Your task to perform on an android device: turn off location Image 0: 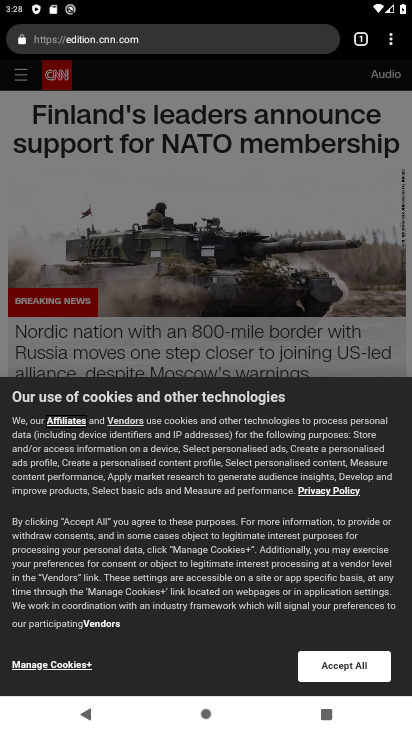
Step 0: click (399, 35)
Your task to perform on an android device: turn off location Image 1: 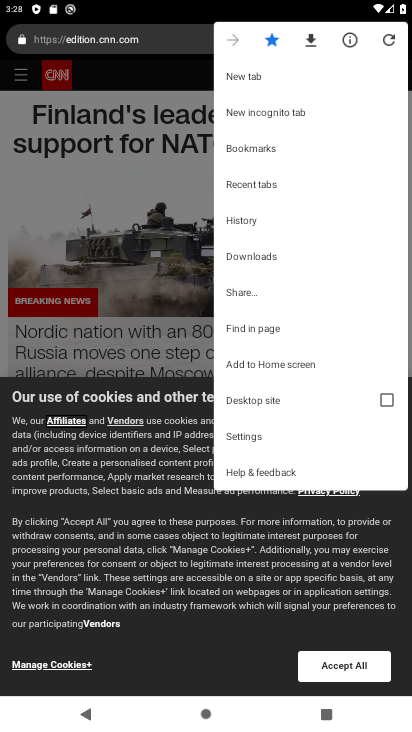
Step 1: click (284, 432)
Your task to perform on an android device: turn off location Image 2: 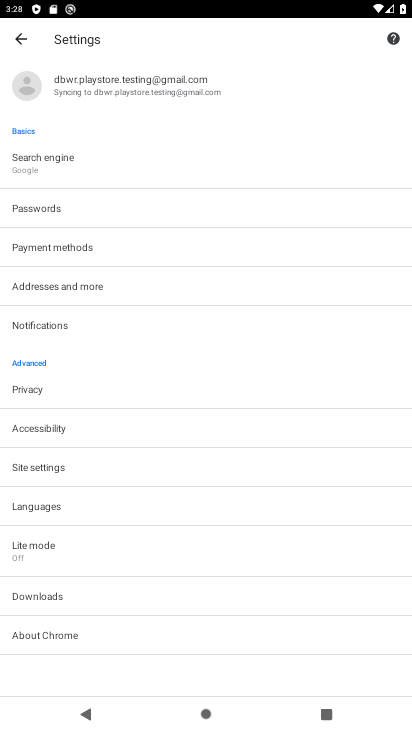
Step 2: press home button
Your task to perform on an android device: turn off location Image 3: 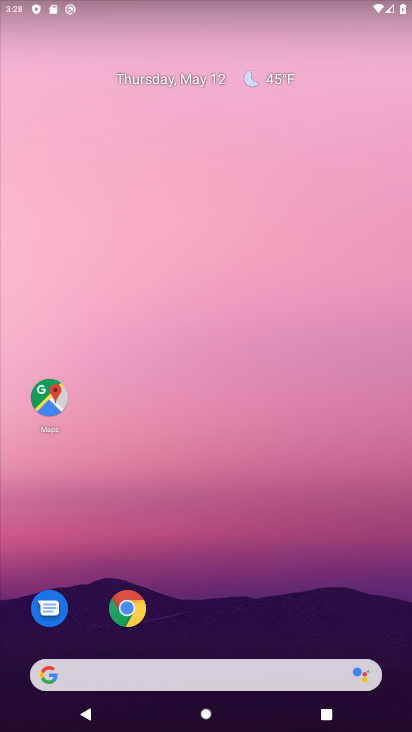
Step 3: drag from (195, 639) to (246, 203)
Your task to perform on an android device: turn off location Image 4: 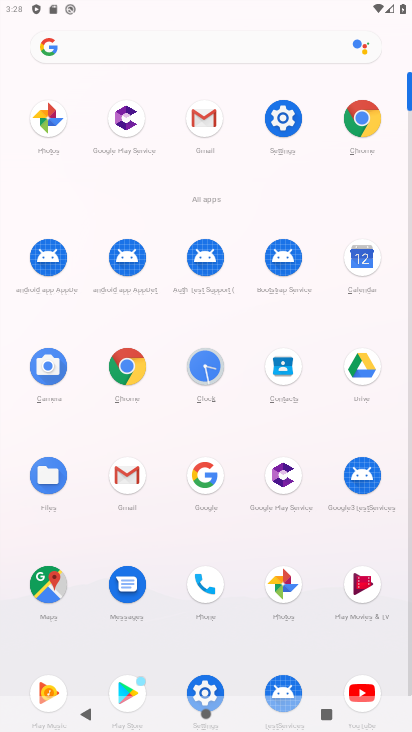
Step 4: click (287, 120)
Your task to perform on an android device: turn off location Image 5: 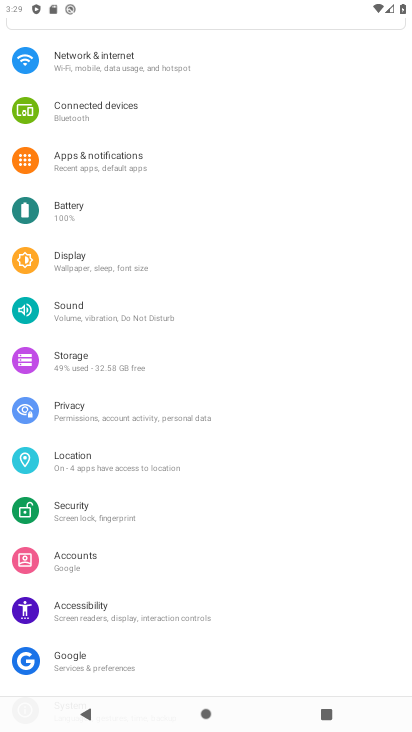
Step 5: click (150, 471)
Your task to perform on an android device: turn off location Image 6: 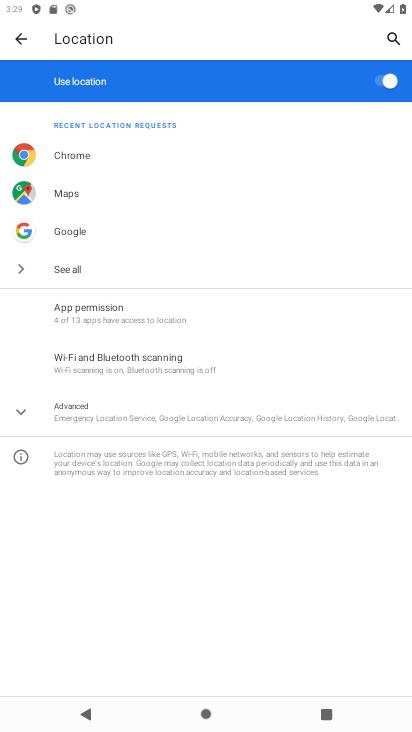
Step 6: click (387, 82)
Your task to perform on an android device: turn off location Image 7: 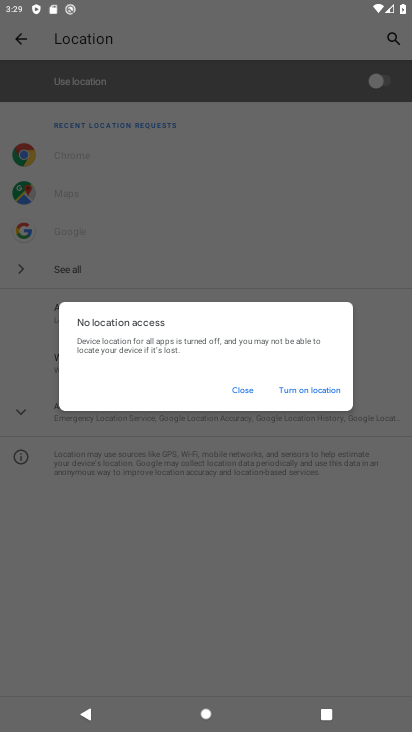
Step 7: task complete